Your task to perform on an android device: snooze an email in the gmail app Image 0: 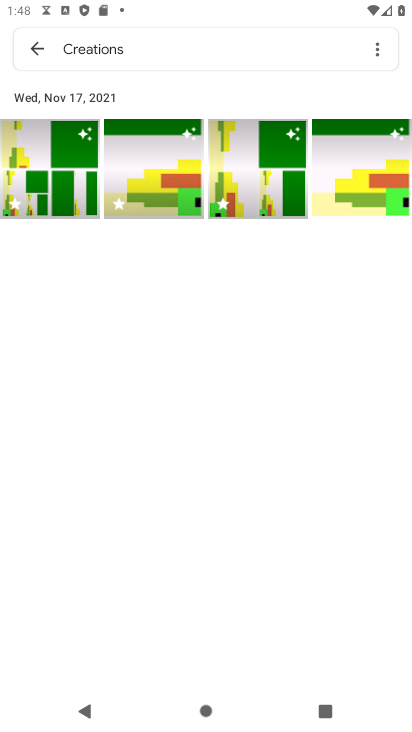
Step 0: press home button
Your task to perform on an android device: snooze an email in the gmail app Image 1: 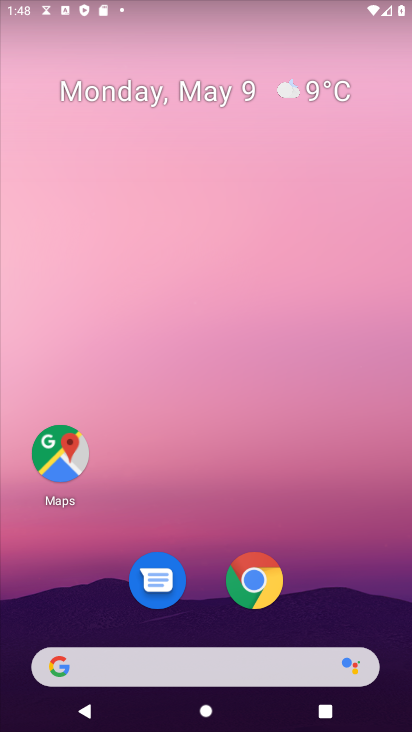
Step 1: drag from (351, 540) to (328, 347)
Your task to perform on an android device: snooze an email in the gmail app Image 2: 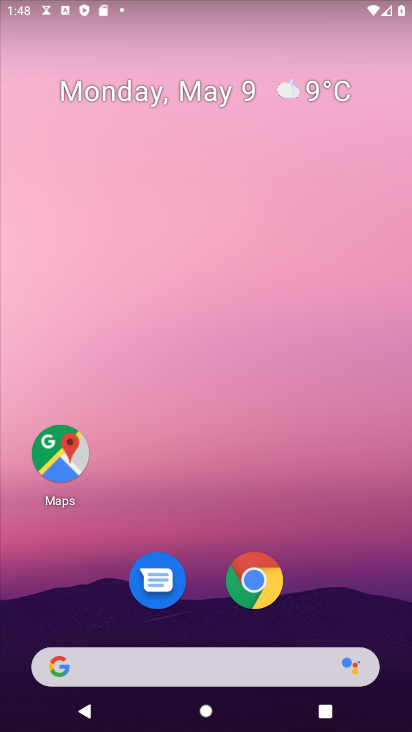
Step 2: drag from (243, 521) to (206, 0)
Your task to perform on an android device: snooze an email in the gmail app Image 3: 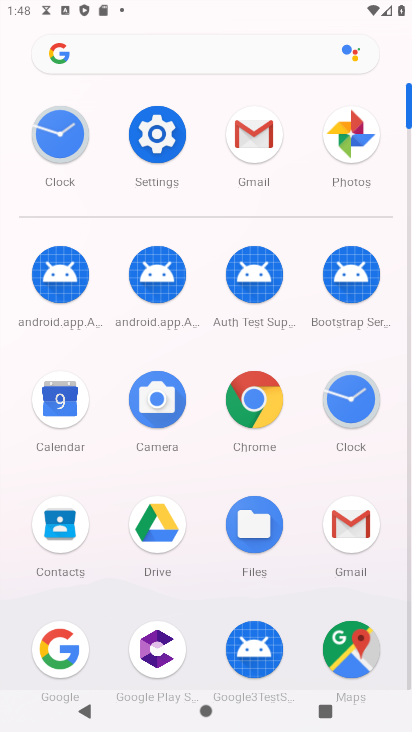
Step 3: click (345, 527)
Your task to perform on an android device: snooze an email in the gmail app Image 4: 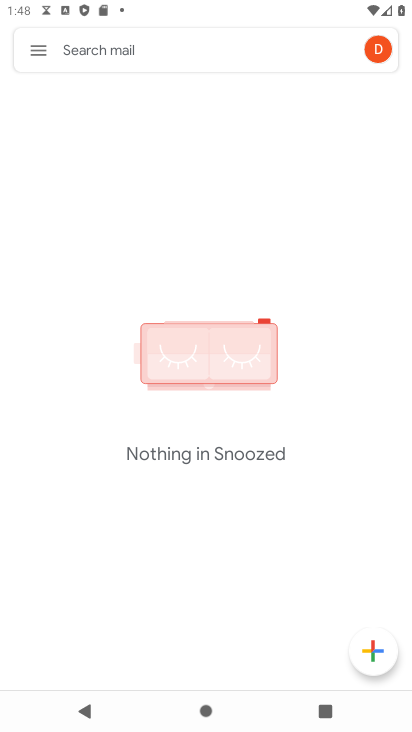
Step 4: click (37, 42)
Your task to perform on an android device: snooze an email in the gmail app Image 5: 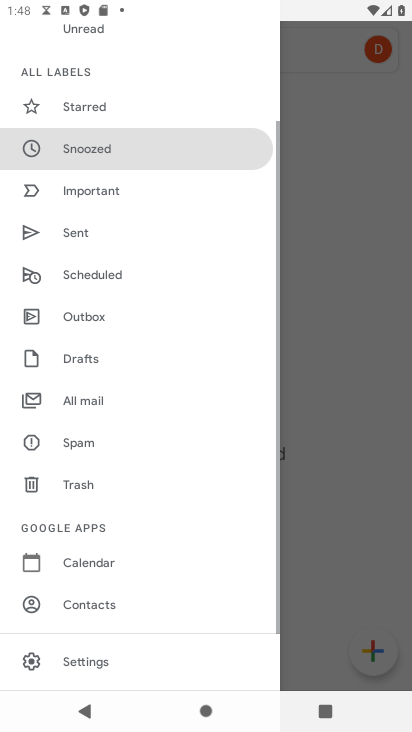
Step 5: click (98, 393)
Your task to perform on an android device: snooze an email in the gmail app Image 6: 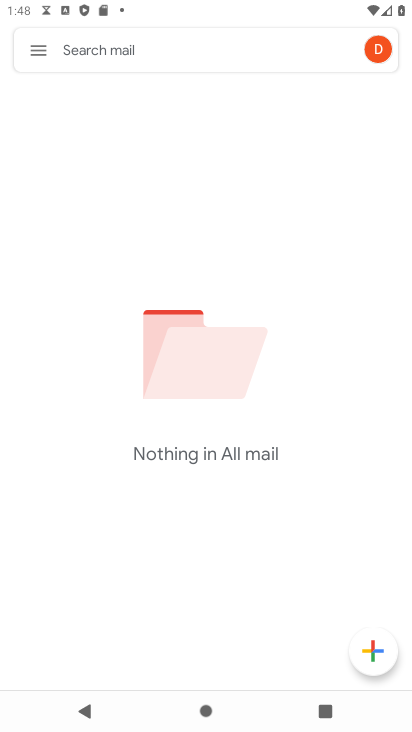
Step 6: task complete